Your task to perform on an android device: clear history in the chrome app Image 0: 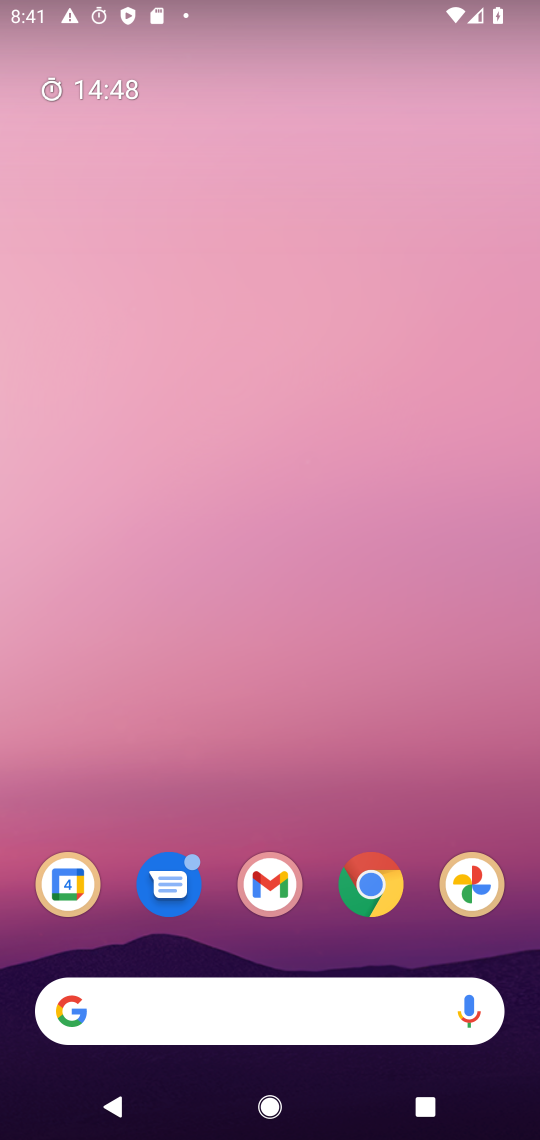
Step 0: press home button
Your task to perform on an android device: clear history in the chrome app Image 1: 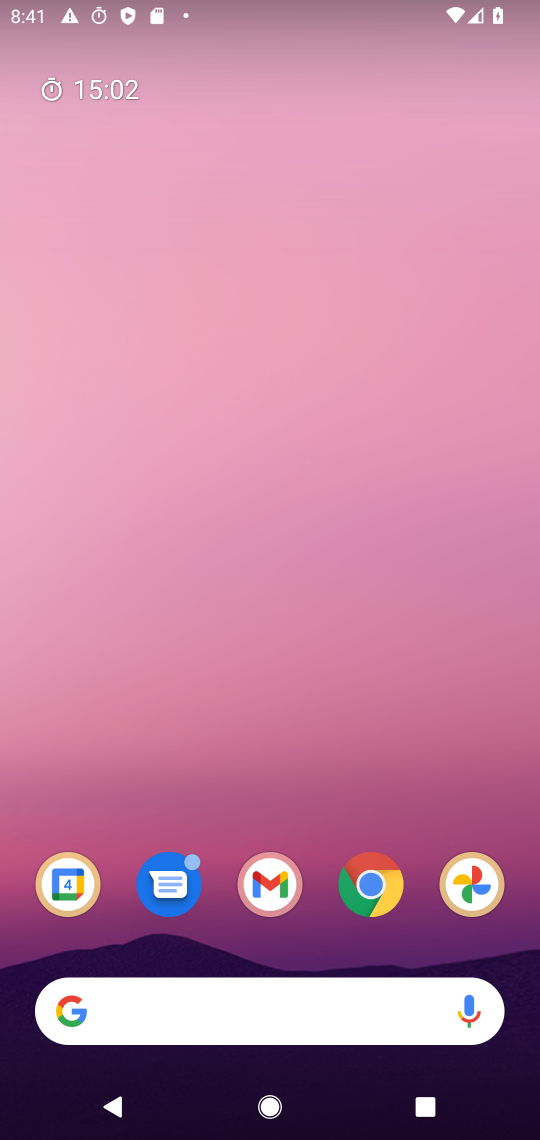
Step 1: click (392, 890)
Your task to perform on an android device: clear history in the chrome app Image 2: 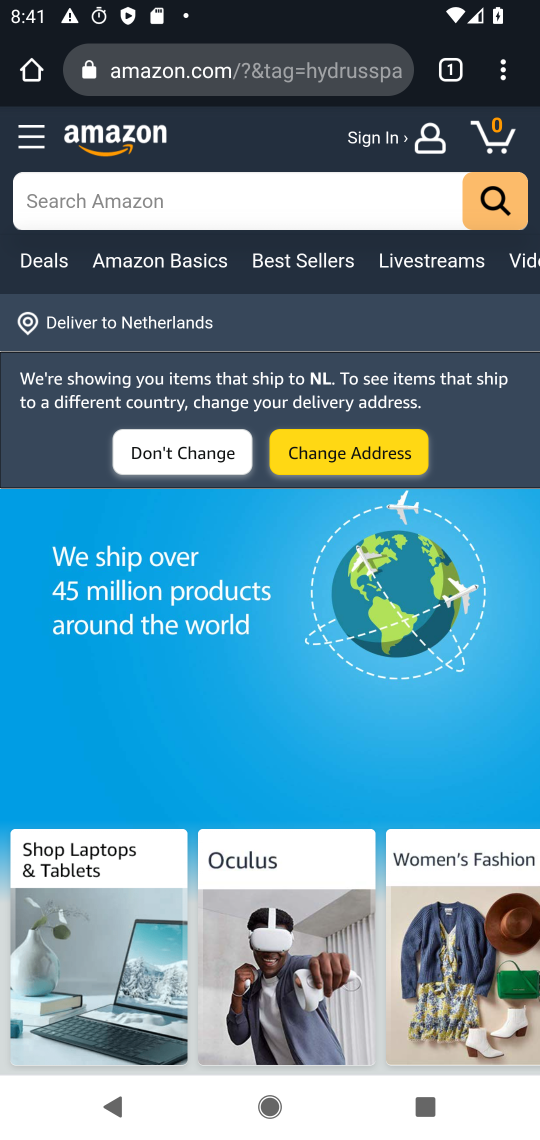
Step 2: drag from (514, 71) to (300, 874)
Your task to perform on an android device: clear history in the chrome app Image 3: 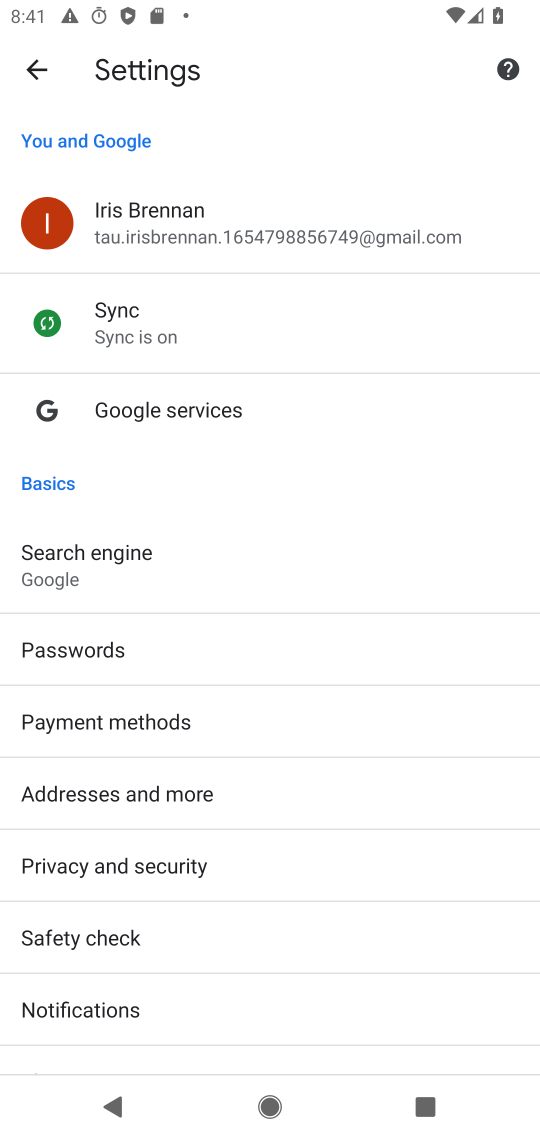
Step 3: drag from (447, 800) to (481, 330)
Your task to perform on an android device: clear history in the chrome app Image 4: 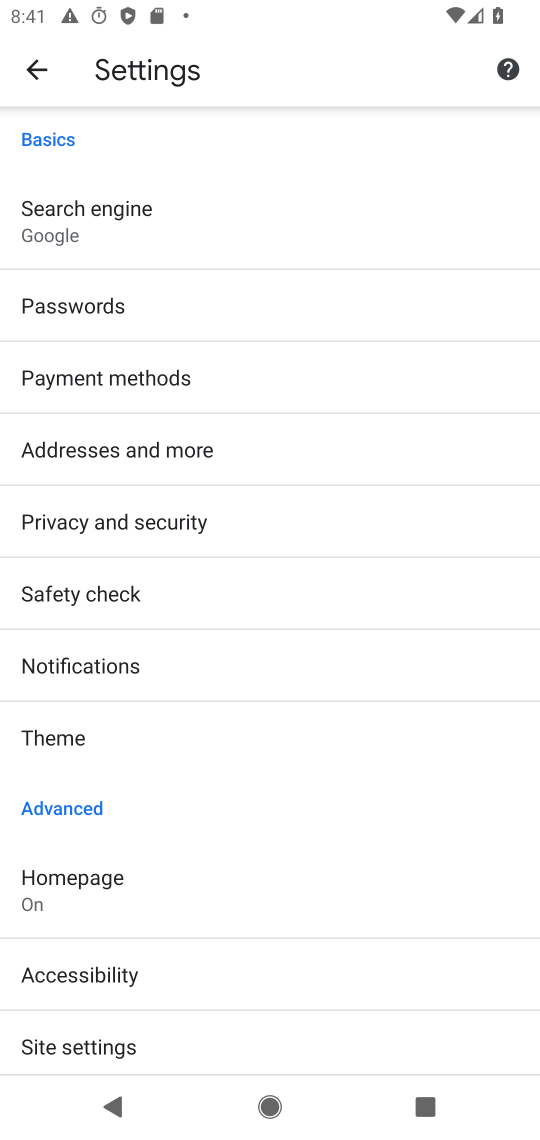
Step 4: click (109, 529)
Your task to perform on an android device: clear history in the chrome app Image 5: 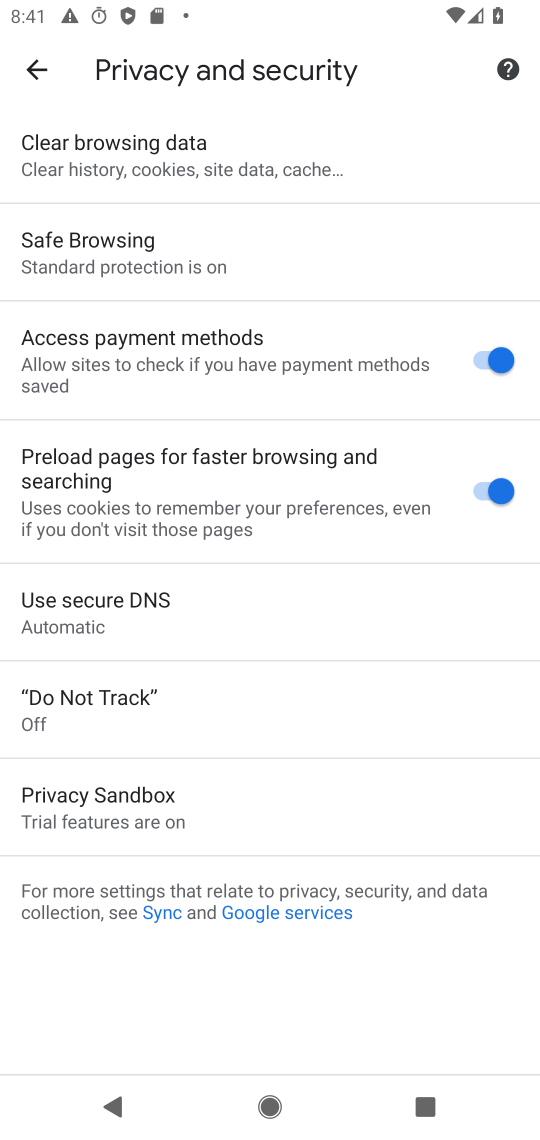
Step 5: click (98, 153)
Your task to perform on an android device: clear history in the chrome app Image 6: 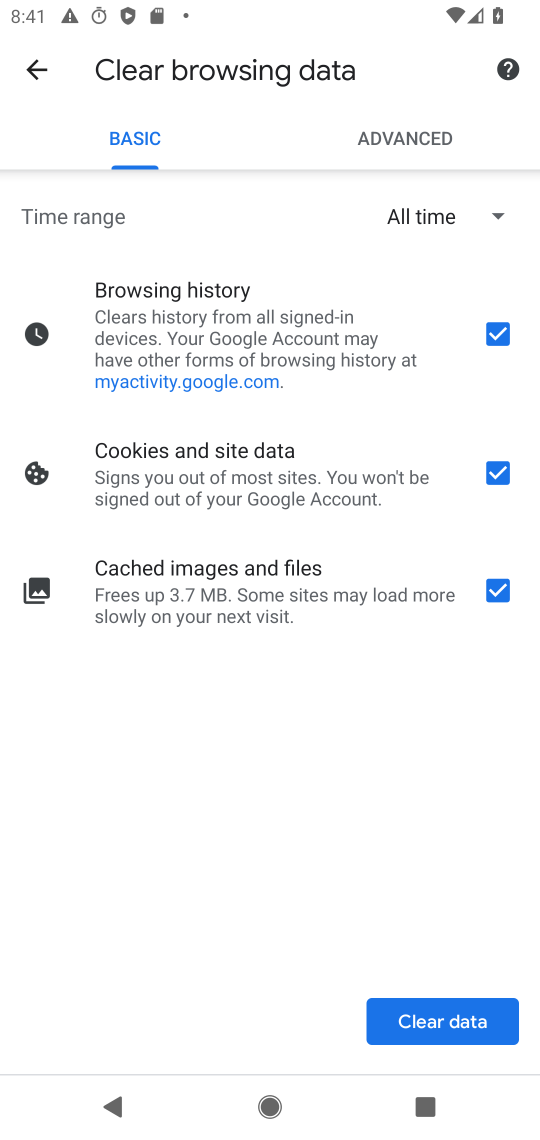
Step 6: click (491, 465)
Your task to perform on an android device: clear history in the chrome app Image 7: 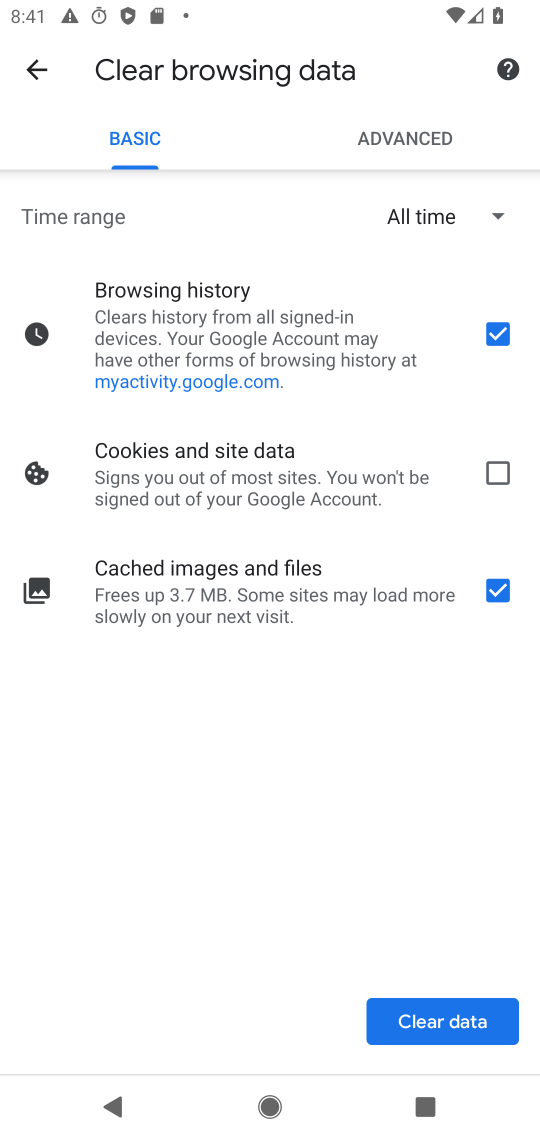
Step 7: click (501, 584)
Your task to perform on an android device: clear history in the chrome app Image 8: 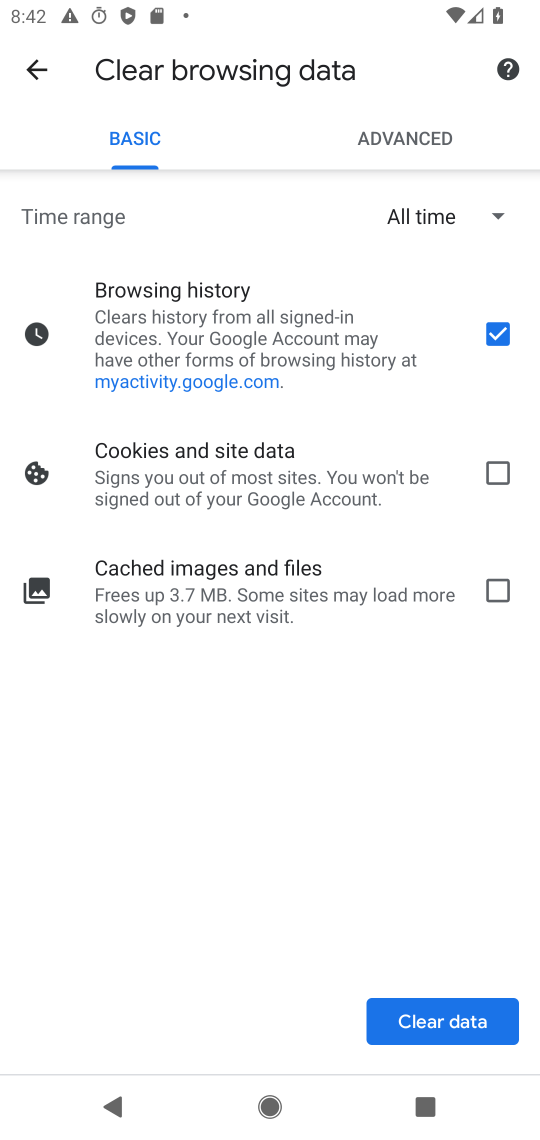
Step 8: click (412, 1021)
Your task to perform on an android device: clear history in the chrome app Image 9: 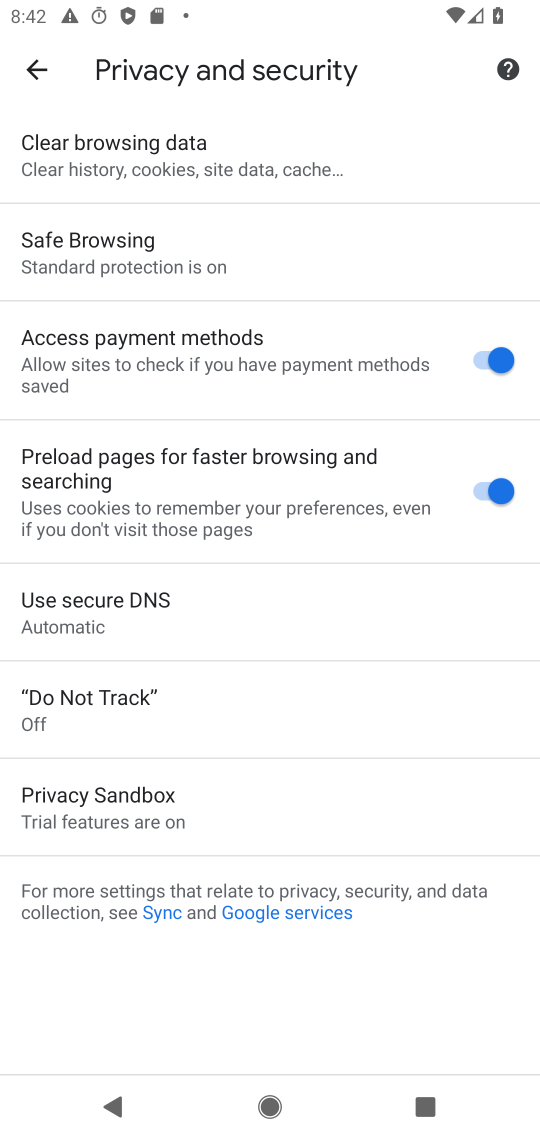
Step 9: task complete